Your task to perform on an android device: turn on improve location accuracy Image 0: 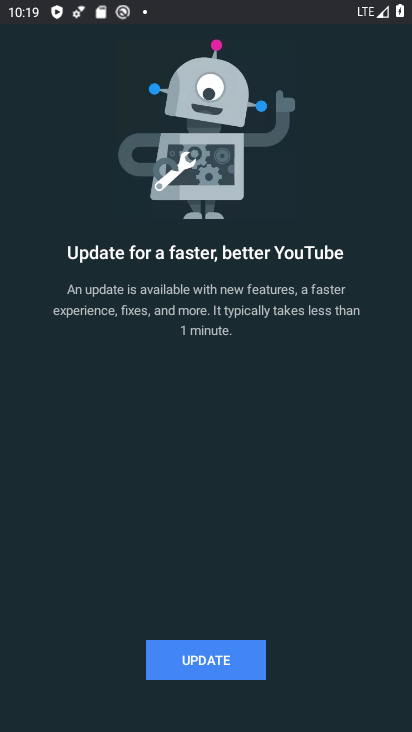
Step 0: press home button
Your task to perform on an android device: turn on improve location accuracy Image 1: 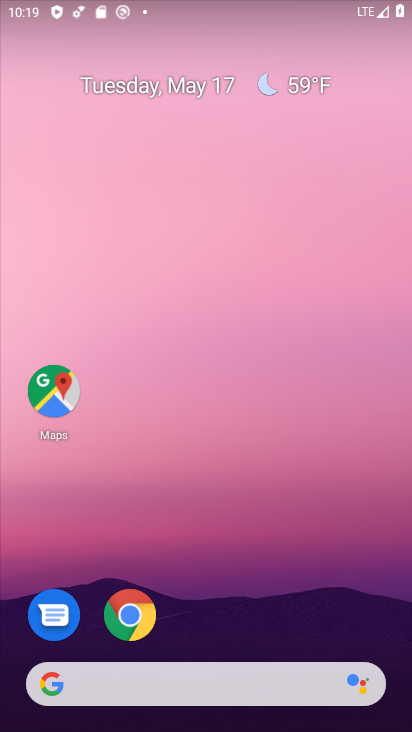
Step 1: drag from (202, 685) to (358, 111)
Your task to perform on an android device: turn on improve location accuracy Image 2: 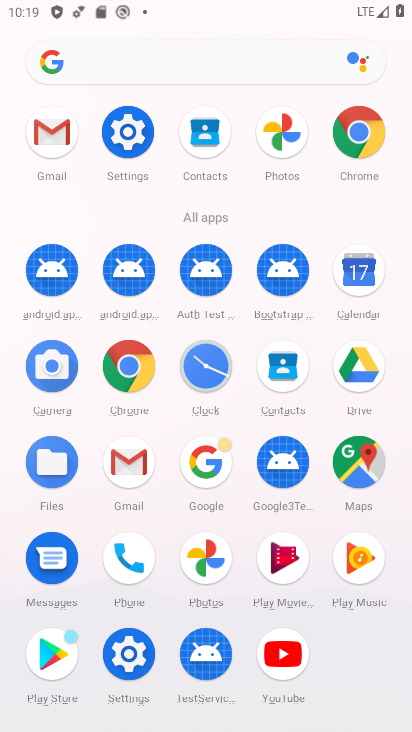
Step 2: click (132, 132)
Your task to perform on an android device: turn on improve location accuracy Image 3: 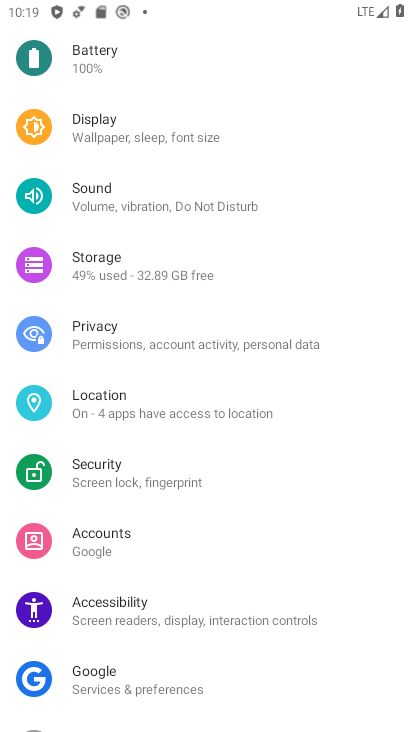
Step 3: click (111, 418)
Your task to perform on an android device: turn on improve location accuracy Image 4: 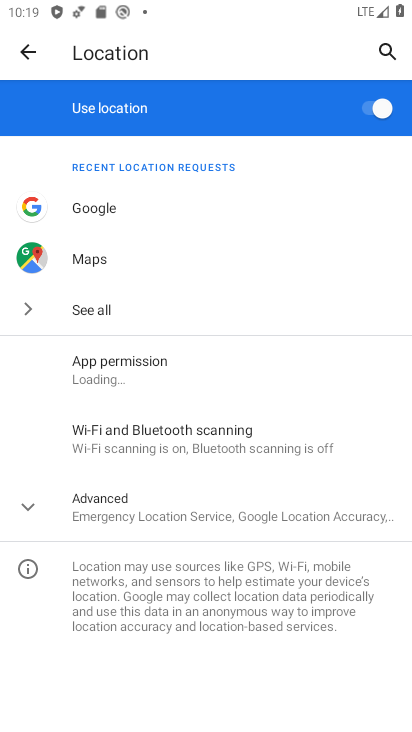
Step 4: click (138, 498)
Your task to perform on an android device: turn on improve location accuracy Image 5: 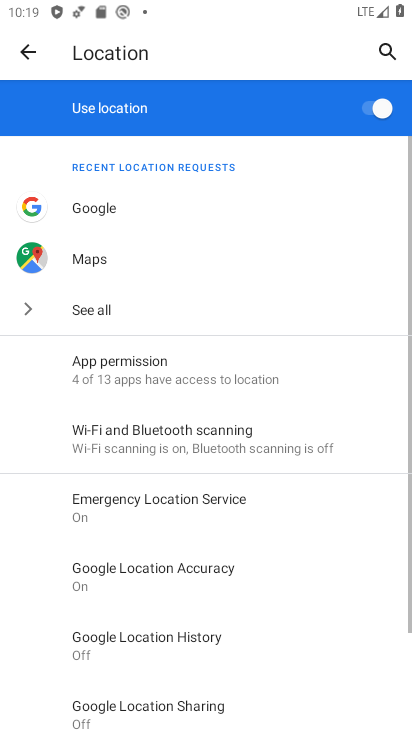
Step 5: click (167, 569)
Your task to perform on an android device: turn on improve location accuracy Image 6: 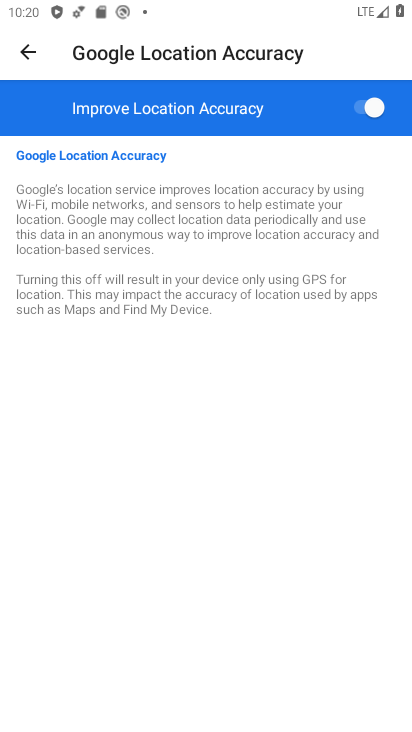
Step 6: task complete